Your task to perform on an android device: Open the map Image 0: 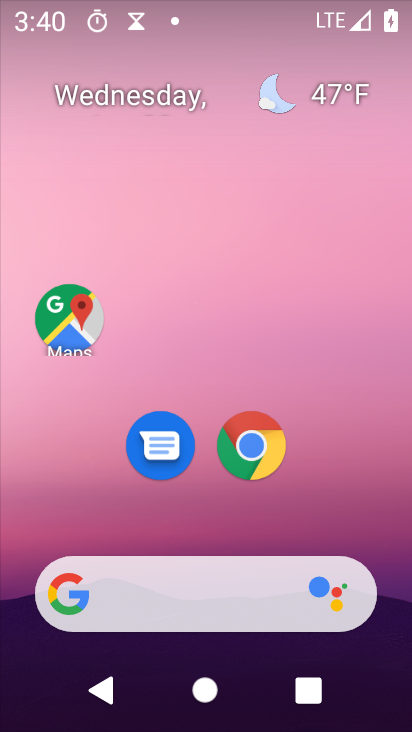
Step 0: click (60, 322)
Your task to perform on an android device: Open the map Image 1: 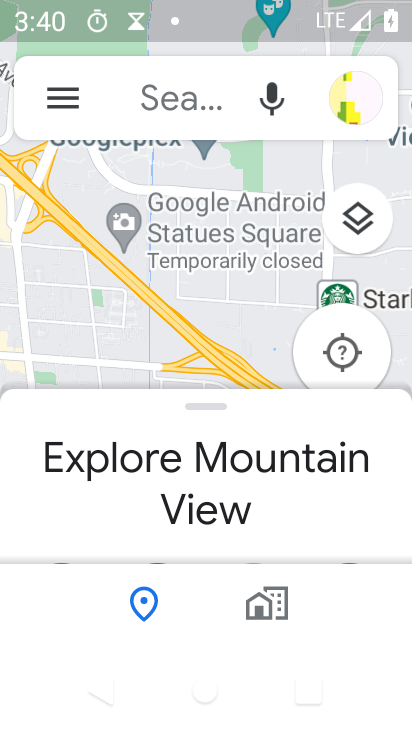
Step 1: task complete